Your task to perform on an android device: Open Chrome and go to settings Image 0: 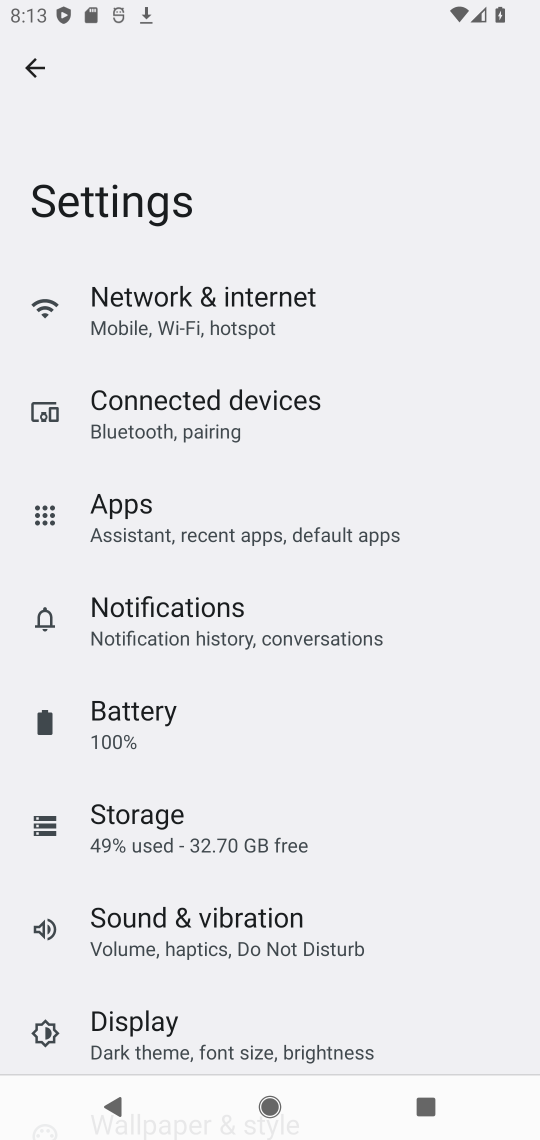
Step 0: press home button
Your task to perform on an android device: Open Chrome and go to settings Image 1: 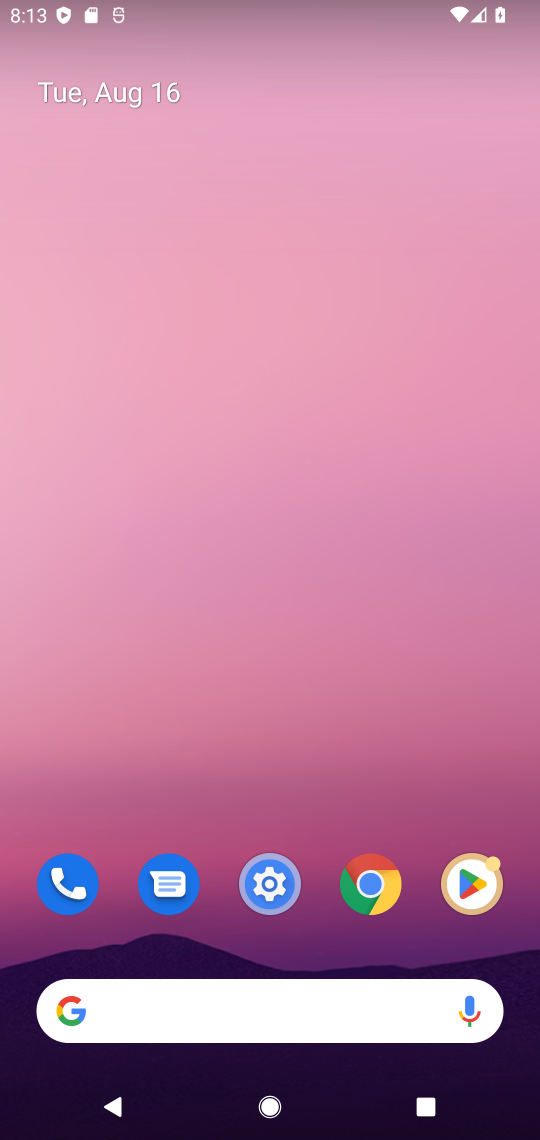
Step 1: click (371, 885)
Your task to perform on an android device: Open Chrome and go to settings Image 2: 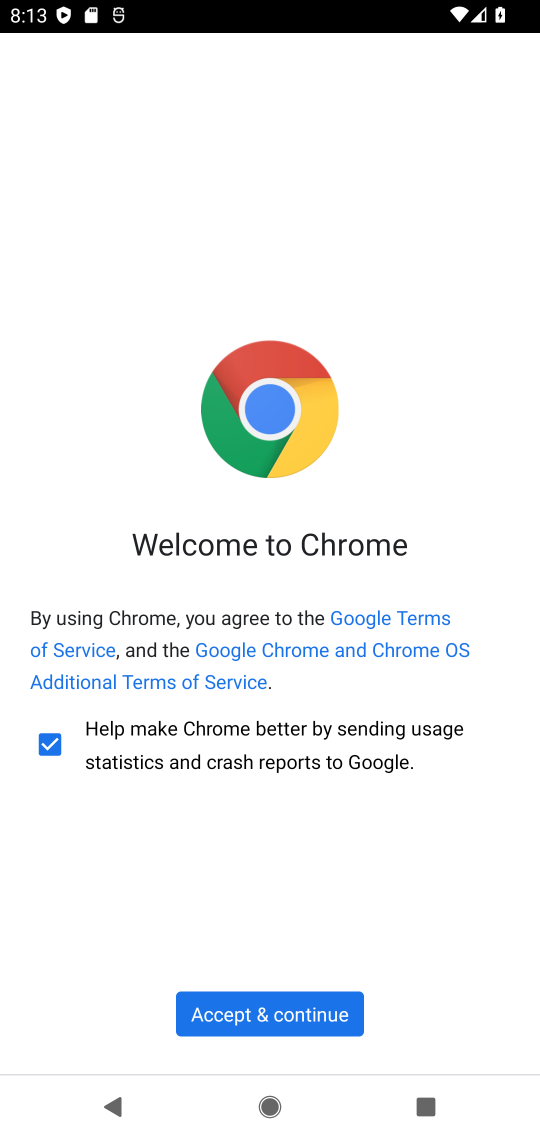
Step 2: click (287, 1022)
Your task to perform on an android device: Open Chrome and go to settings Image 3: 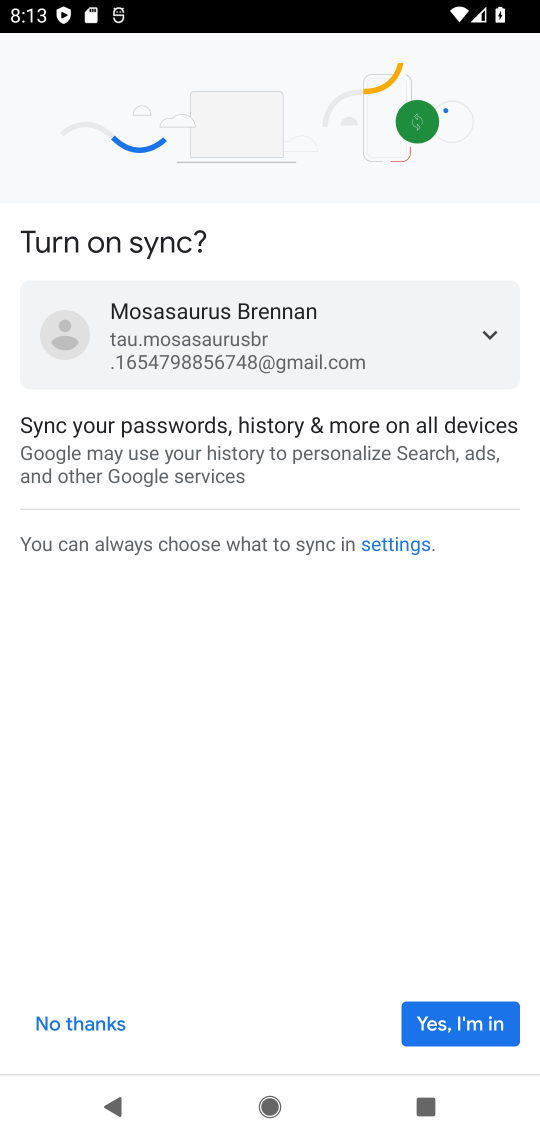
Step 3: click (453, 1025)
Your task to perform on an android device: Open Chrome and go to settings Image 4: 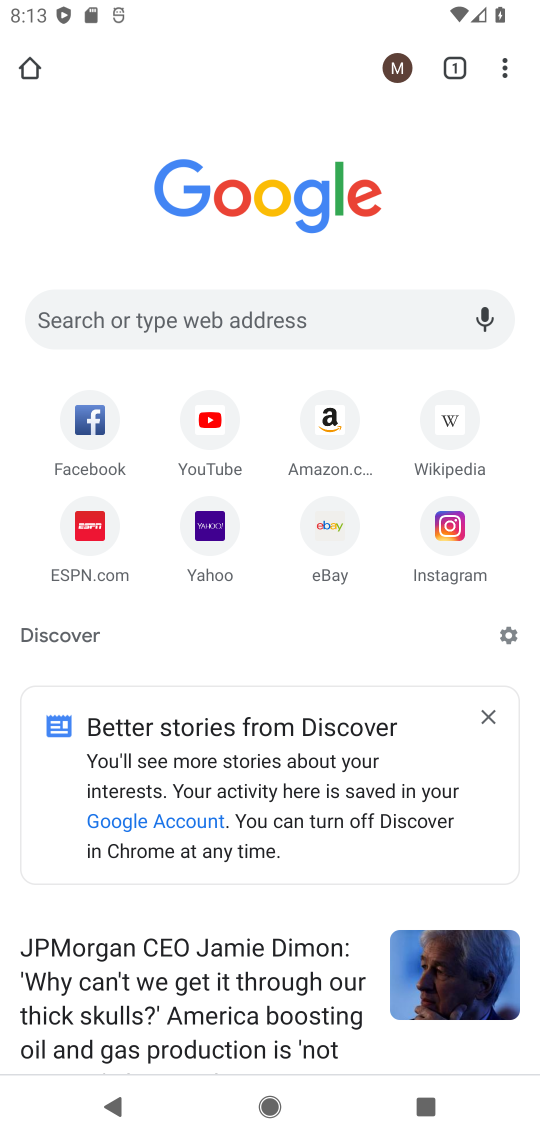
Step 4: click (499, 74)
Your task to perform on an android device: Open Chrome and go to settings Image 5: 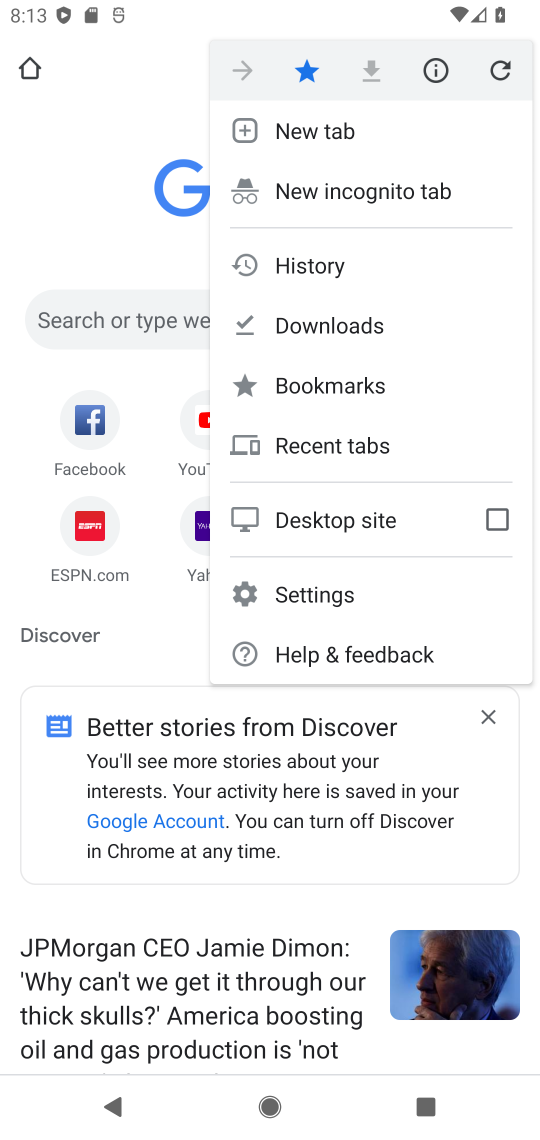
Step 5: click (307, 589)
Your task to perform on an android device: Open Chrome and go to settings Image 6: 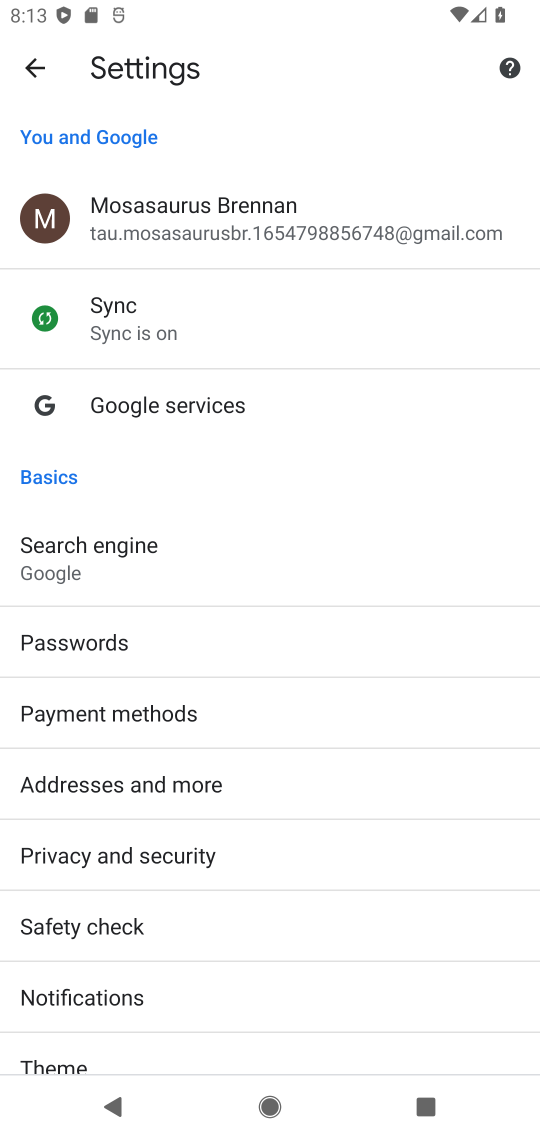
Step 6: task complete